Your task to perform on an android device: Go to location settings Image 0: 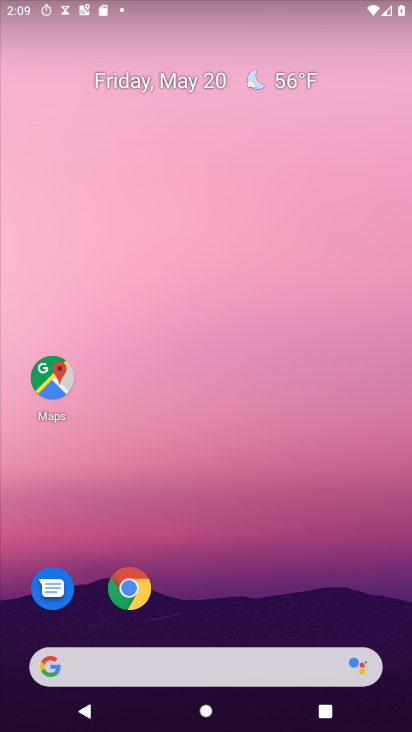
Step 0: drag from (86, 570) to (313, 100)
Your task to perform on an android device: Go to location settings Image 1: 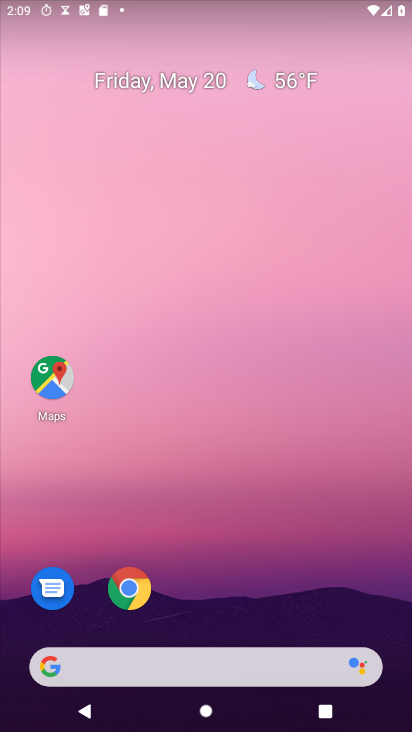
Step 1: drag from (63, 650) to (315, 168)
Your task to perform on an android device: Go to location settings Image 2: 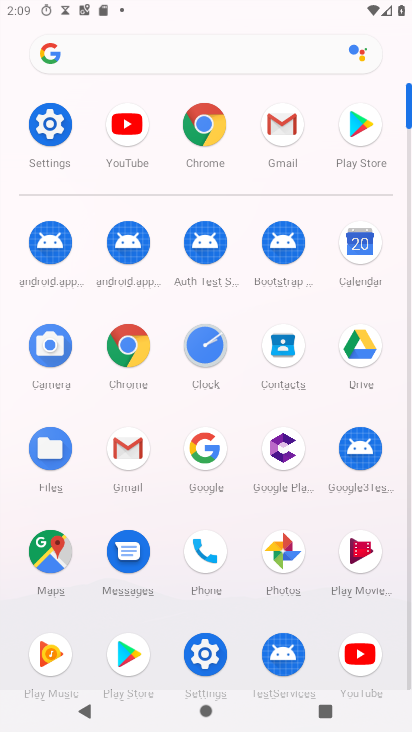
Step 2: click (65, 137)
Your task to perform on an android device: Go to location settings Image 3: 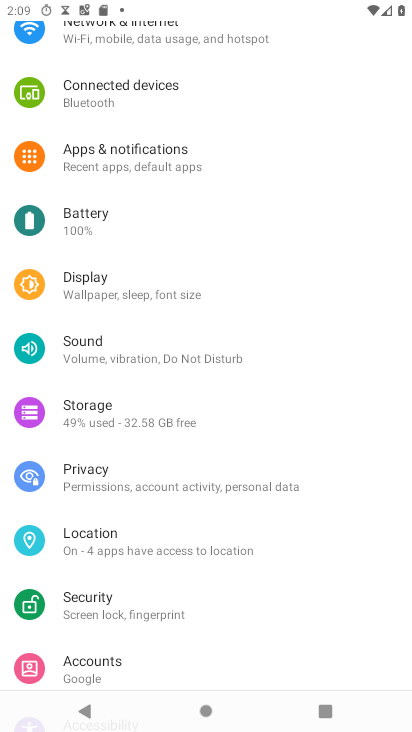
Step 3: click (149, 432)
Your task to perform on an android device: Go to location settings Image 4: 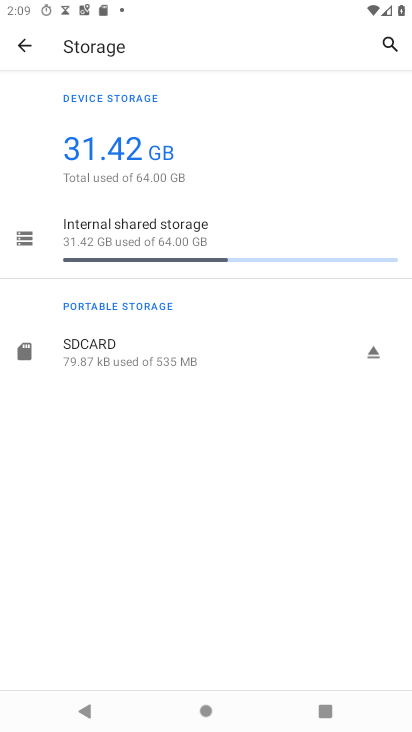
Step 4: press back button
Your task to perform on an android device: Go to location settings Image 5: 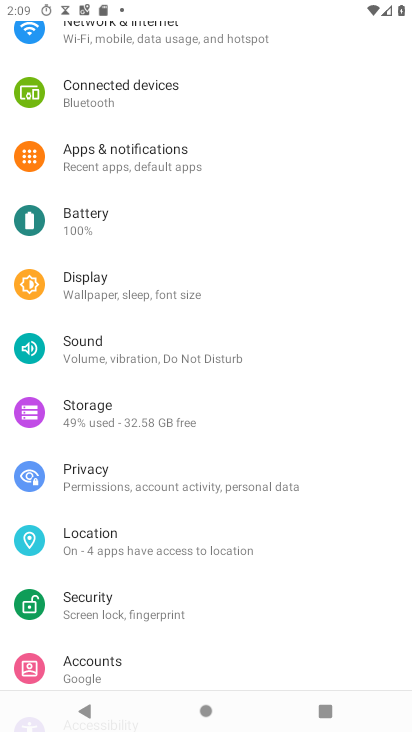
Step 5: click (108, 546)
Your task to perform on an android device: Go to location settings Image 6: 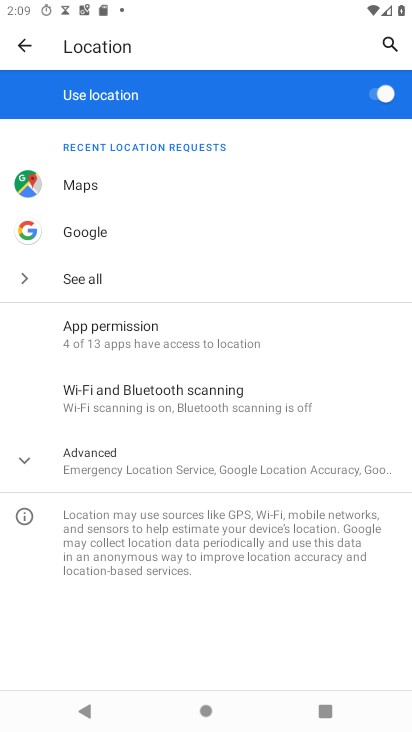
Step 6: task complete